Your task to perform on an android device: Open the stopwatch Image 0: 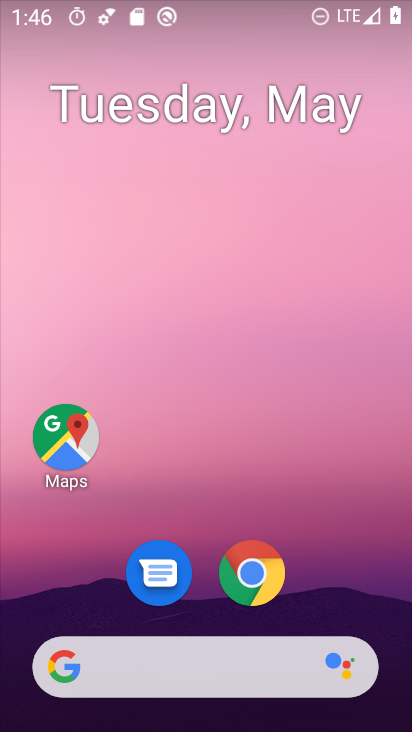
Step 0: drag from (338, 413) to (355, 2)
Your task to perform on an android device: Open the stopwatch Image 1: 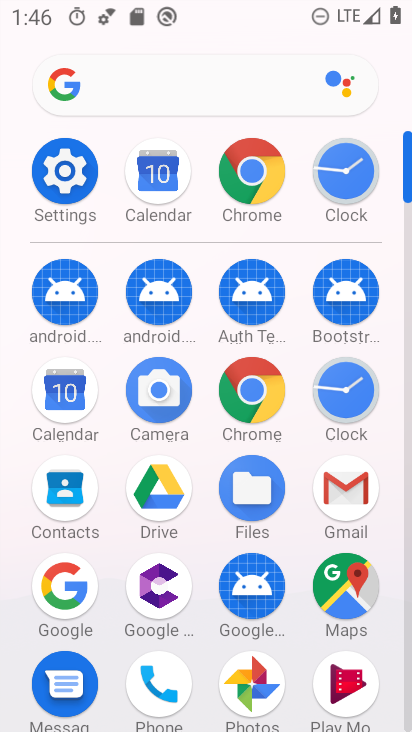
Step 1: click (329, 400)
Your task to perform on an android device: Open the stopwatch Image 2: 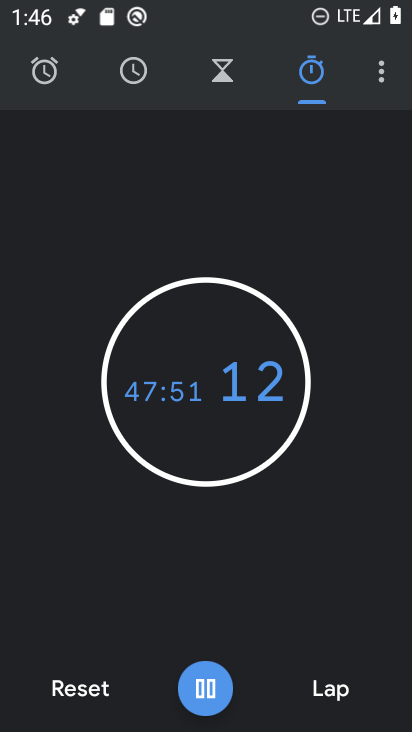
Step 2: task complete